Your task to perform on an android device: empty trash in the gmail app Image 0: 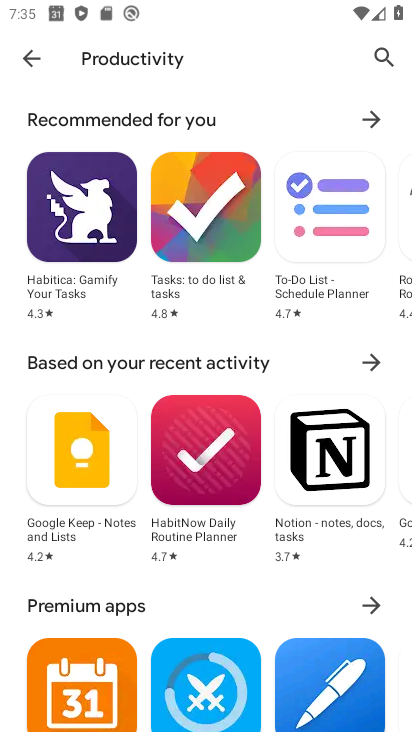
Step 0: press home button
Your task to perform on an android device: empty trash in the gmail app Image 1: 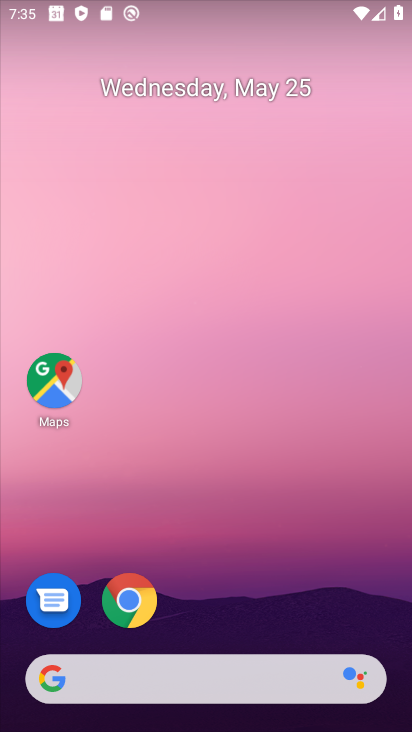
Step 1: drag from (295, 597) to (320, 168)
Your task to perform on an android device: empty trash in the gmail app Image 2: 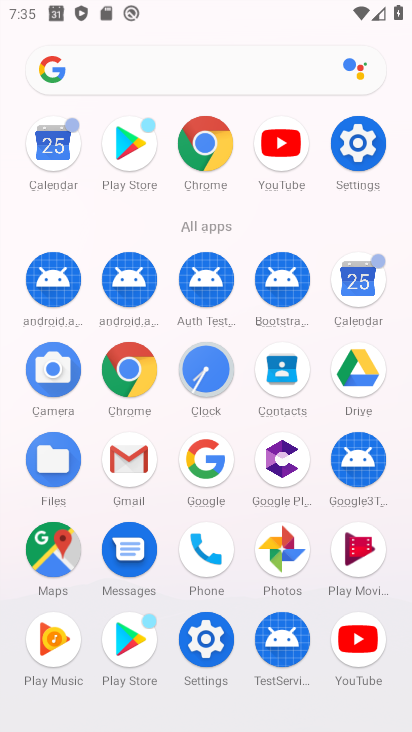
Step 2: click (137, 474)
Your task to perform on an android device: empty trash in the gmail app Image 3: 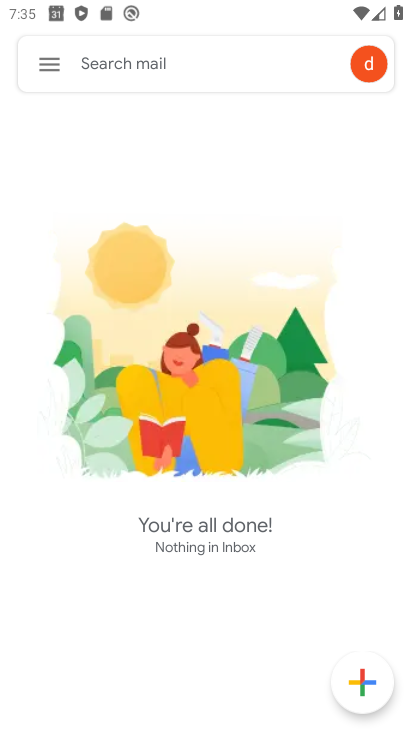
Step 3: click (63, 73)
Your task to perform on an android device: empty trash in the gmail app Image 4: 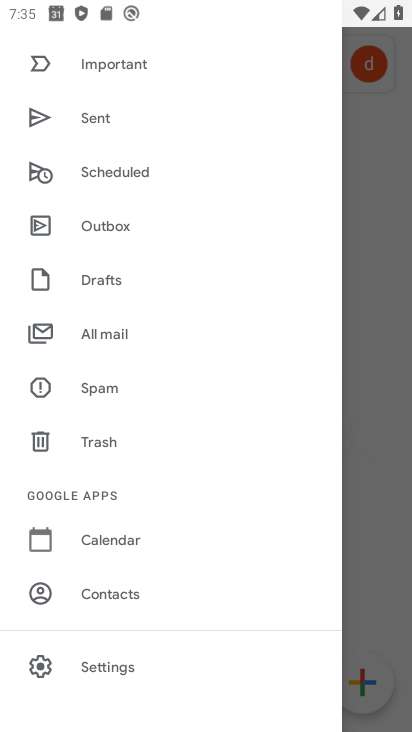
Step 4: click (116, 444)
Your task to perform on an android device: empty trash in the gmail app Image 5: 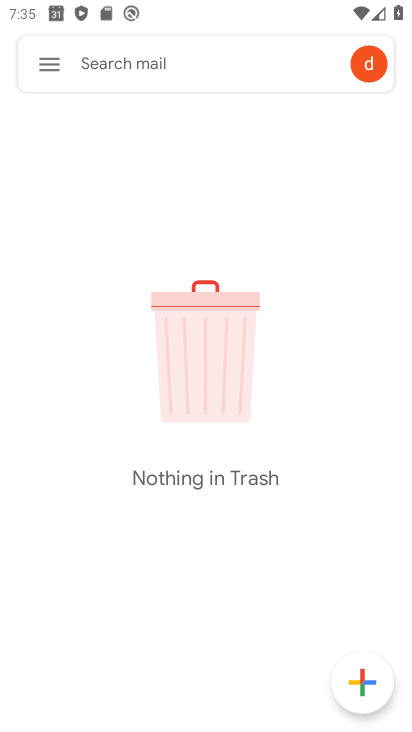
Step 5: task complete